Your task to perform on an android device: What's on my calendar tomorrow? Image 0: 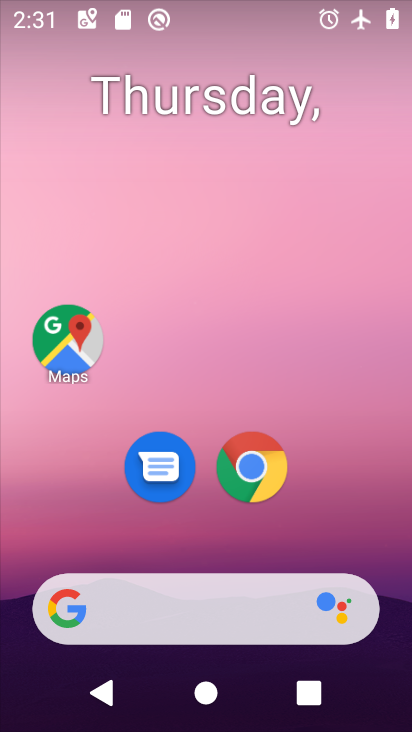
Step 0: drag from (186, 539) to (190, 20)
Your task to perform on an android device: What's on my calendar tomorrow? Image 1: 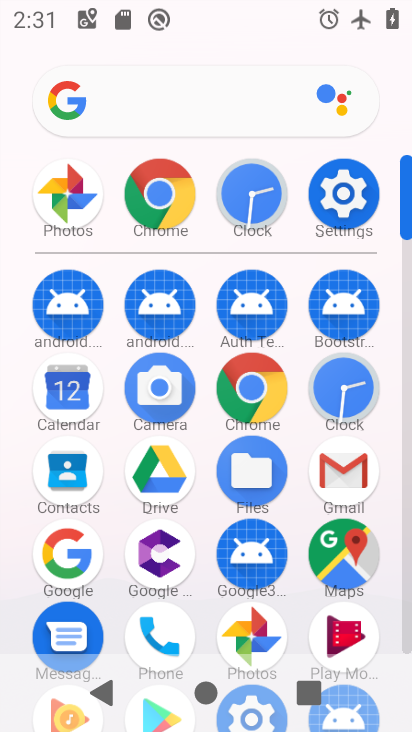
Step 1: click (76, 391)
Your task to perform on an android device: What's on my calendar tomorrow? Image 2: 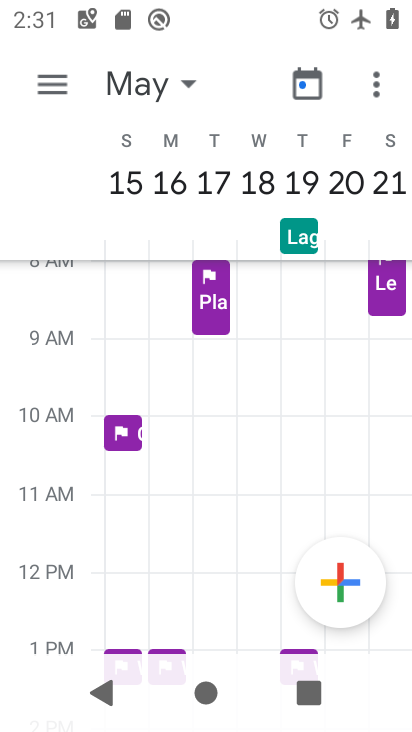
Step 2: click (318, 71)
Your task to perform on an android device: What's on my calendar tomorrow? Image 3: 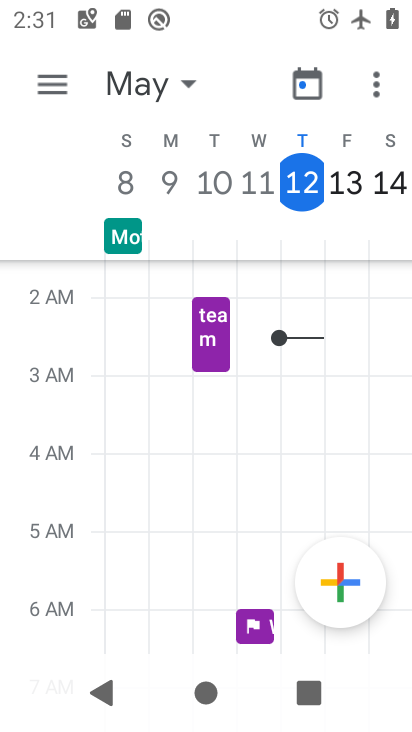
Step 3: click (346, 185)
Your task to perform on an android device: What's on my calendar tomorrow? Image 4: 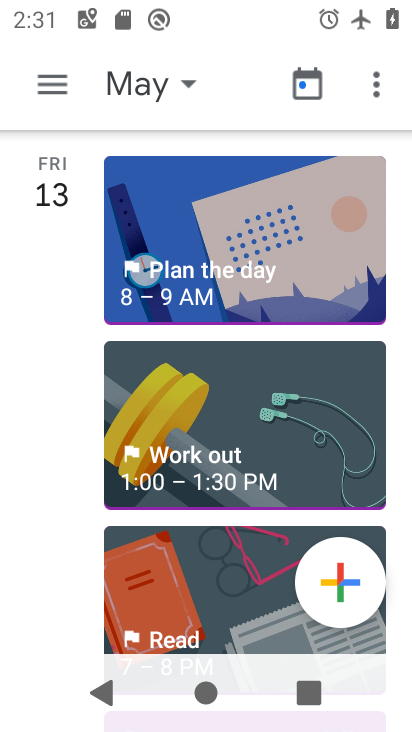
Step 4: task complete